Your task to perform on an android device: delete the emails in spam in the gmail app Image 0: 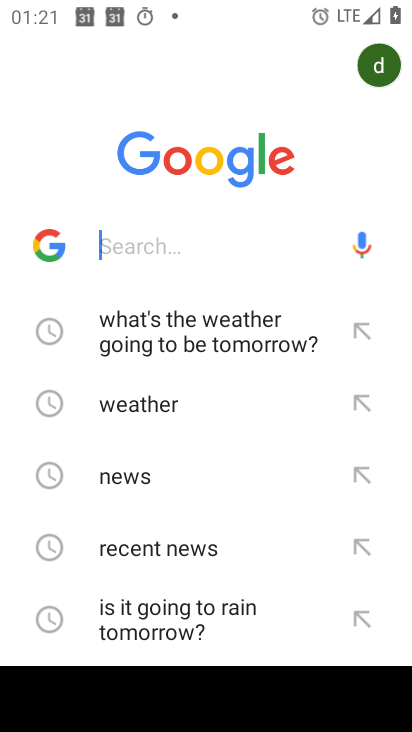
Step 0: press home button
Your task to perform on an android device: delete the emails in spam in the gmail app Image 1: 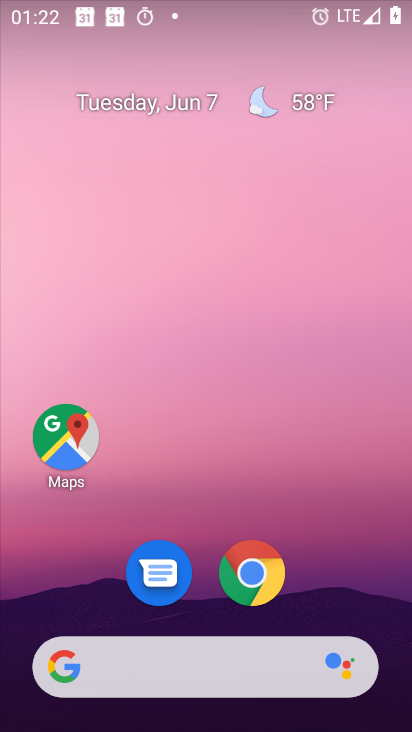
Step 1: drag from (329, 552) to (371, 96)
Your task to perform on an android device: delete the emails in spam in the gmail app Image 2: 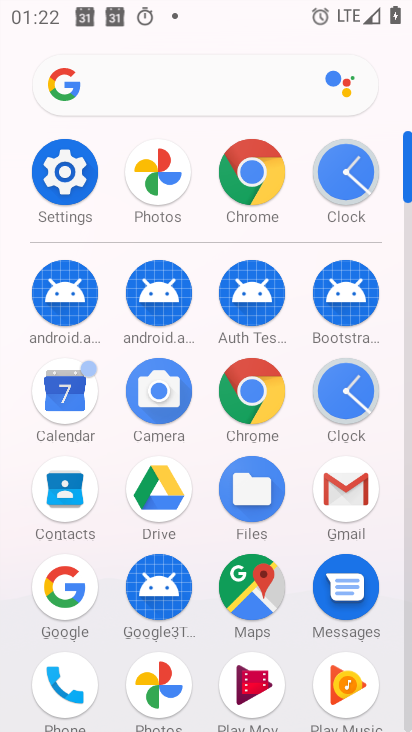
Step 2: click (336, 483)
Your task to perform on an android device: delete the emails in spam in the gmail app Image 3: 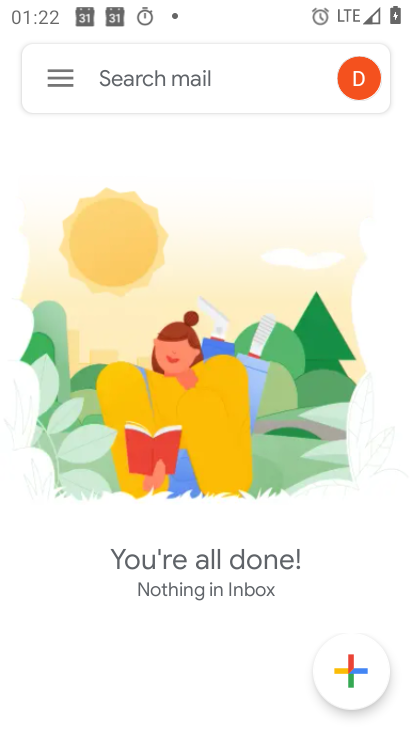
Step 3: click (68, 73)
Your task to perform on an android device: delete the emails in spam in the gmail app Image 4: 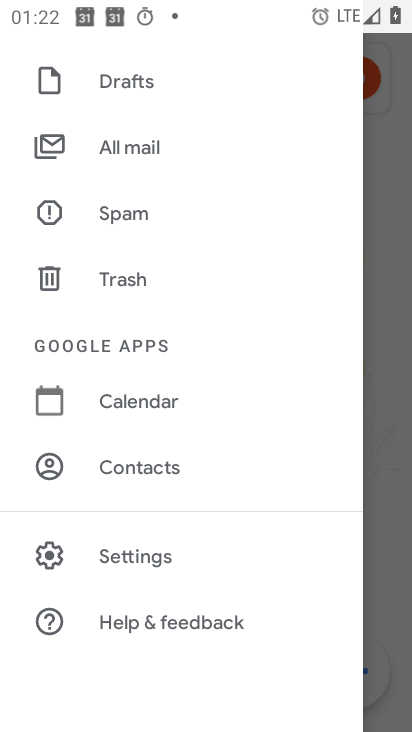
Step 4: click (133, 218)
Your task to perform on an android device: delete the emails in spam in the gmail app Image 5: 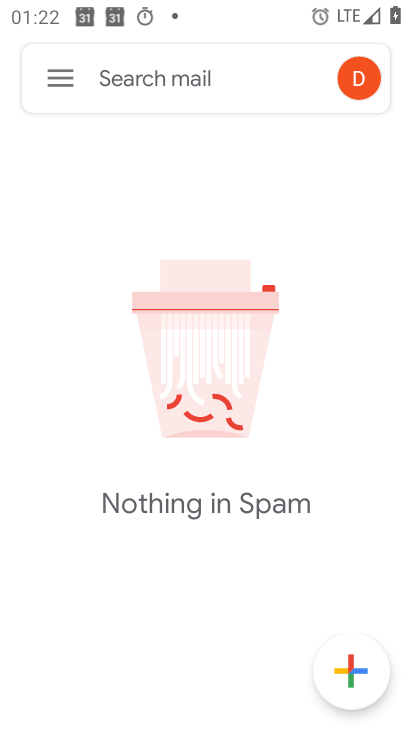
Step 5: task complete